Your task to perform on an android device: set the stopwatch Image 0: 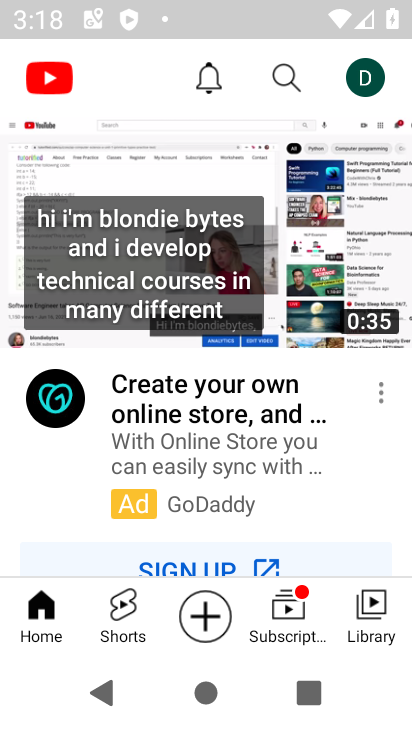
Step 0: press home button
Your task to perform on an android device: set the stopwatch Image 1: 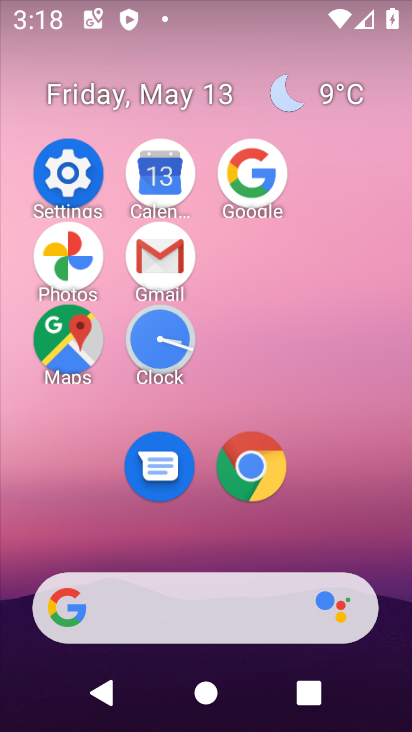
Step 1: click (150, 354)
Your task to perform on an android device: set the stopwatch Image 2: 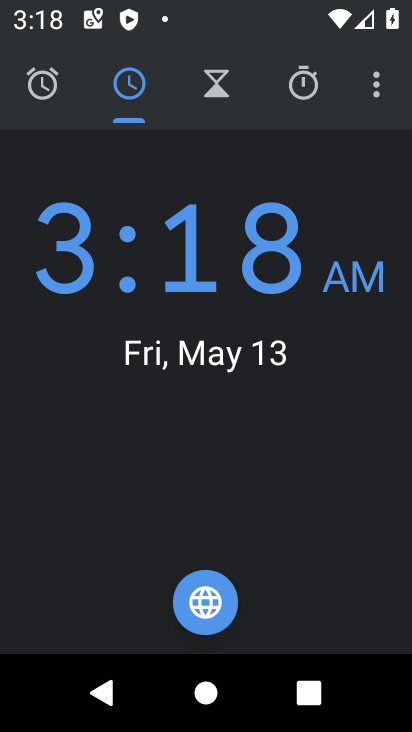
Step 2: click (303, 109)
Your task to perform on an android device: set the stopwatch Image 3: 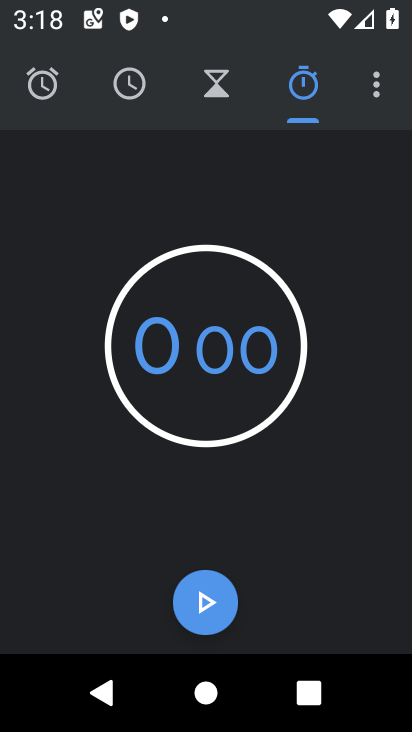
Step 3: click (213, 584)
Your task to perform on an android device: set the stopwatch Image 4: 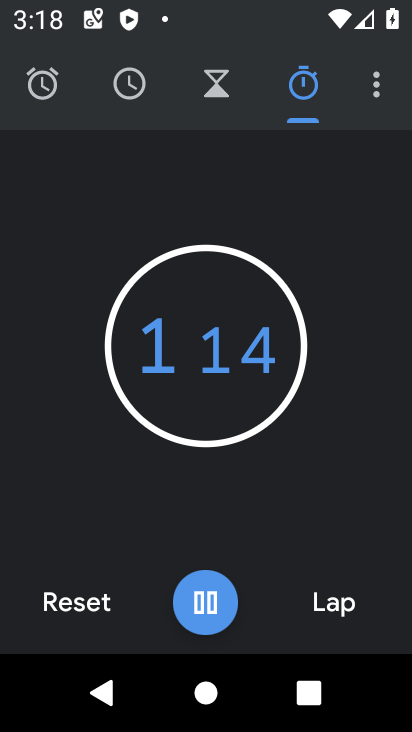
Step 4: task complete